Your task to perform on an android device: create a new album in the google photos Image 0: 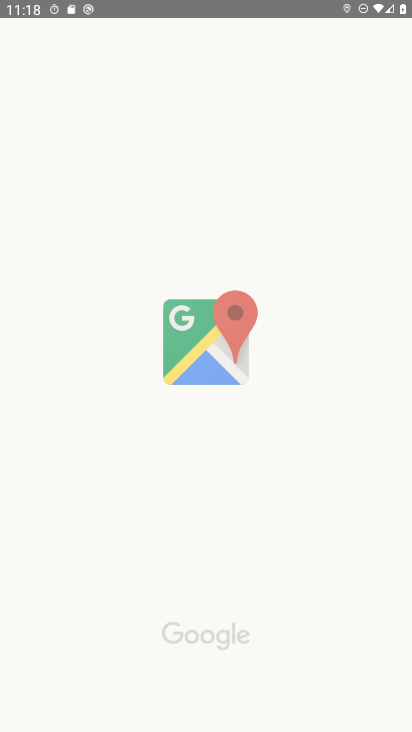
Step 0: press home button
Your task to perform on an android device: create a new album in the google photos Image 1: 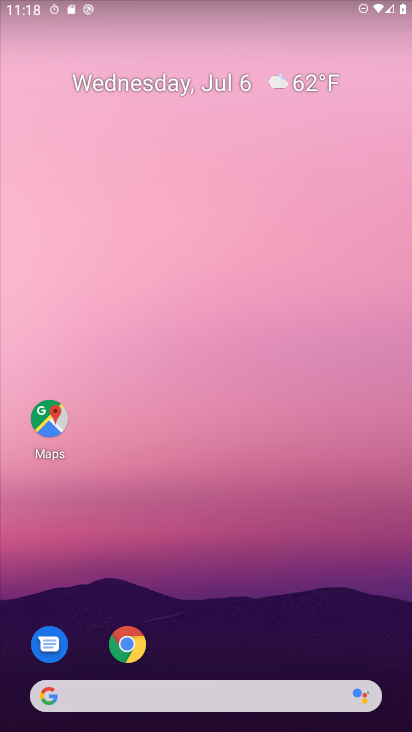
Step 1: drag from (218, 635) to (216, 140)
Your task to perform on an android device: create a new album in the google photos Image 2: 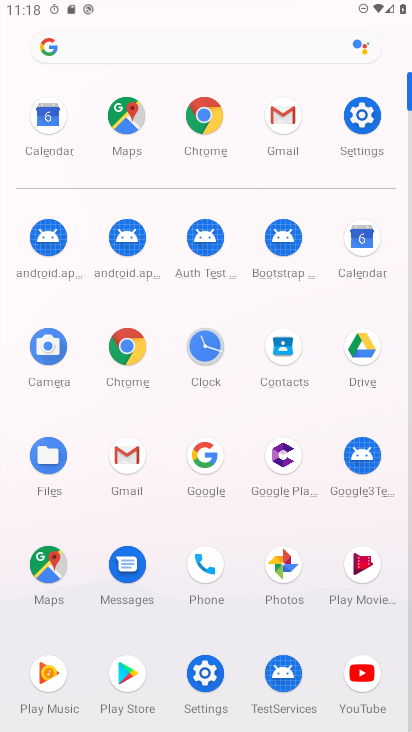
Step 2: click (284, 560)
Your task to perform on an android device: create a new album in the google photos Image 3: 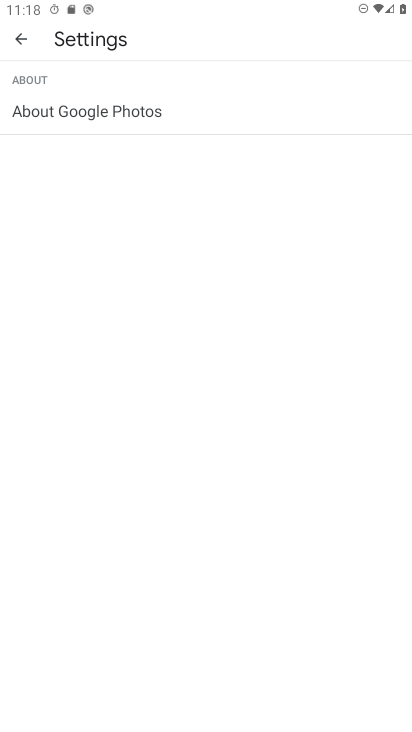
Step 3: click (25, 33)
Your task to perform on an android device: create a new album in the google photos Image 4: 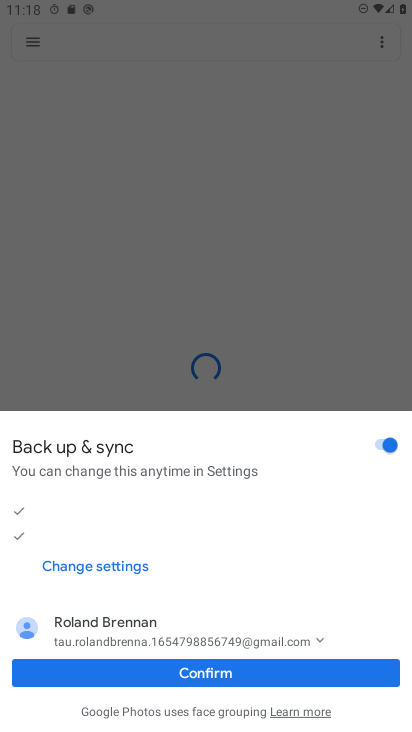
Step 4: click (152, 703)
Your task to perform on an android device: create a new album in the google photos Image 5: 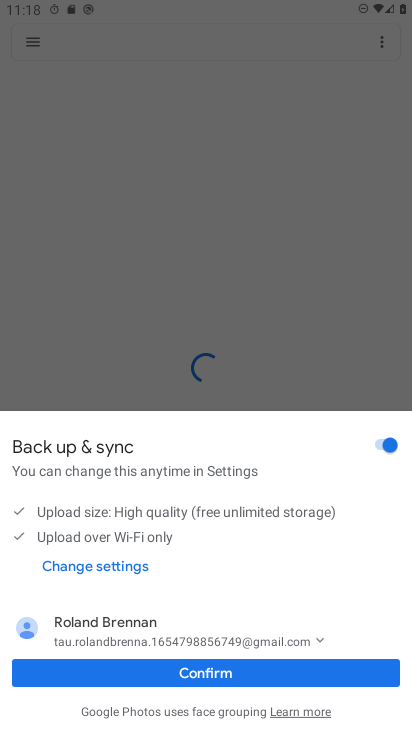
Step 5: click (212, 675)
Your task to perform on an android device: create a new album in the google photos Image 6: 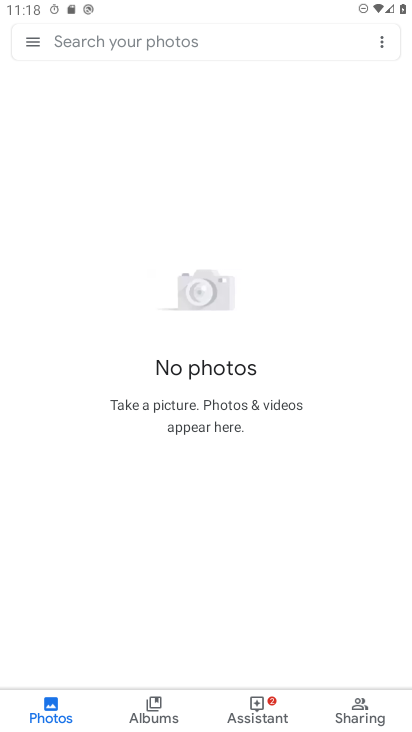
Step 6: click (383, 43)
Your task to perform on an android device: create a new album in the google photos Image 7: 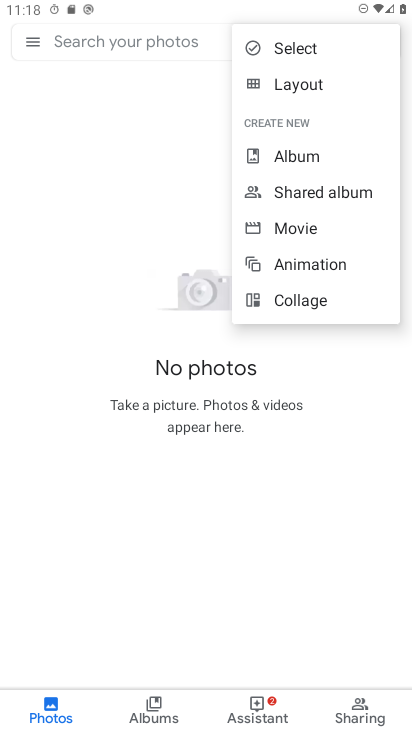
Step 7: click (302, 159)
Your task to perform on an android device: create a new album in the google photos Image 8: 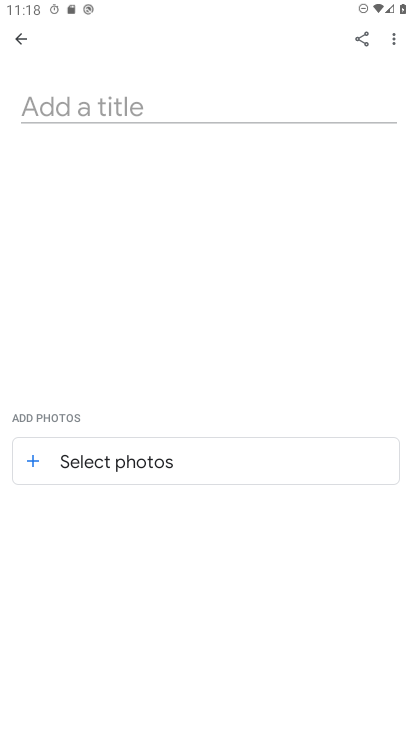
Step 8: click (42, 456)
Your task to perform on an android device: create a new album in the google photos Image 9: 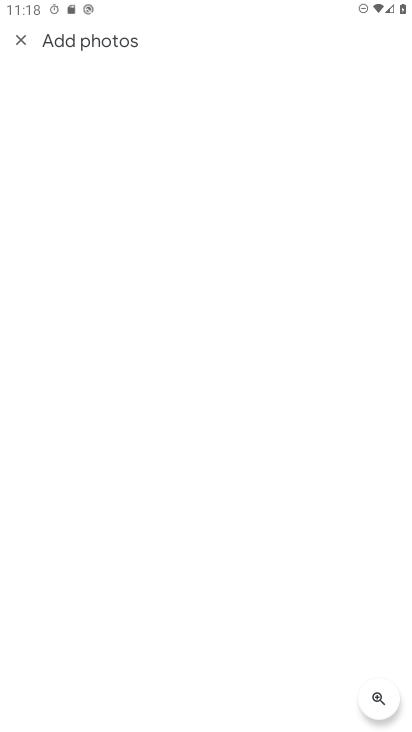
Step 9: task complete